Your task to perform on an android device: change your default location settings in chrome Image 0: 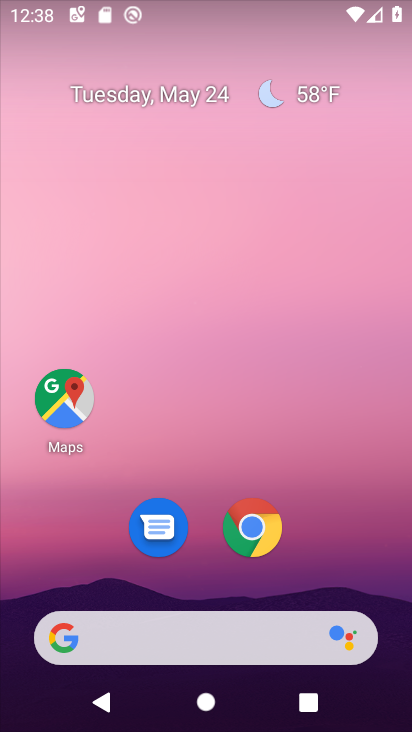
Step 0: click (257, 531)
Your task to perform on an android device: change your default location settings in chrome Image 1: 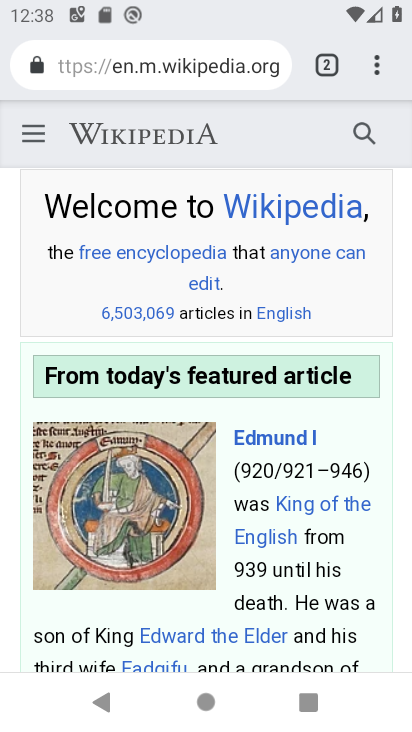
Step 1: click (368, 69)
Your task to perform on an android device: change your default location settings in chrome Image 2: 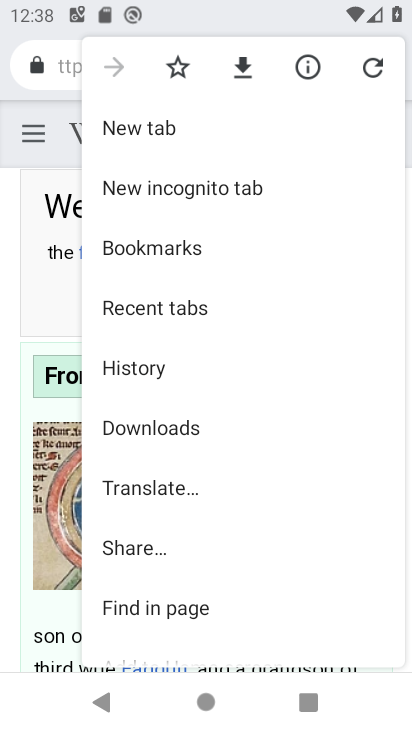
Step 2: drag from (253, 620) to (261, 200)
Your task to perform on an android device: change your default location settings in chrome Image 3: 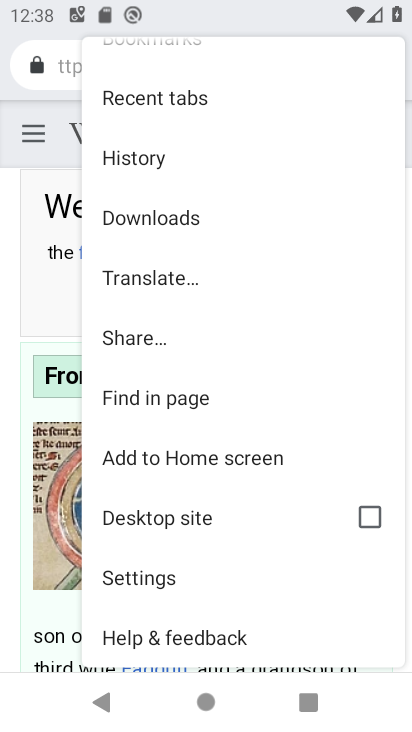
Step 3: click (260, 565)
Your task to perform on an android device: change your default location settings in chrome Image 4: 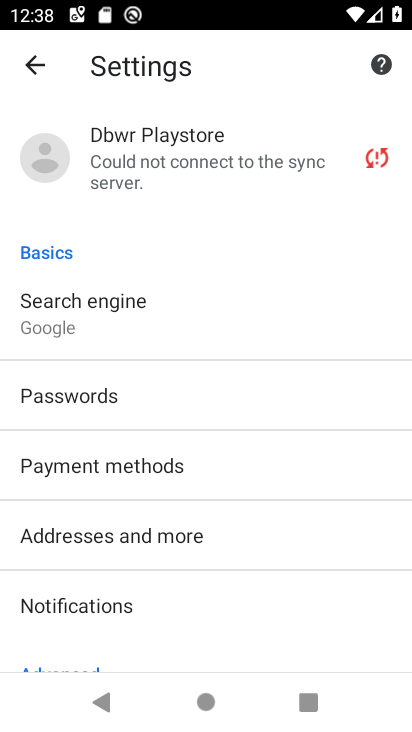
Step 4: click (186, 330)
Your task to perform on an android device: change your default location settings in chrome Image 5: 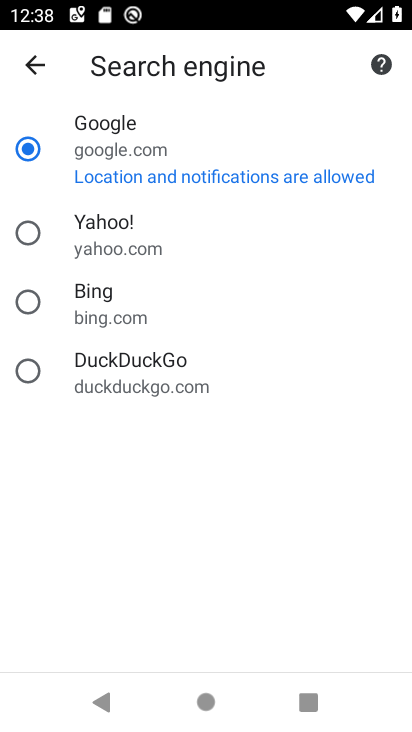
Step 5: click (142, 248)
Your task to perform on an android device: change your default location settings in chrome Image 6: 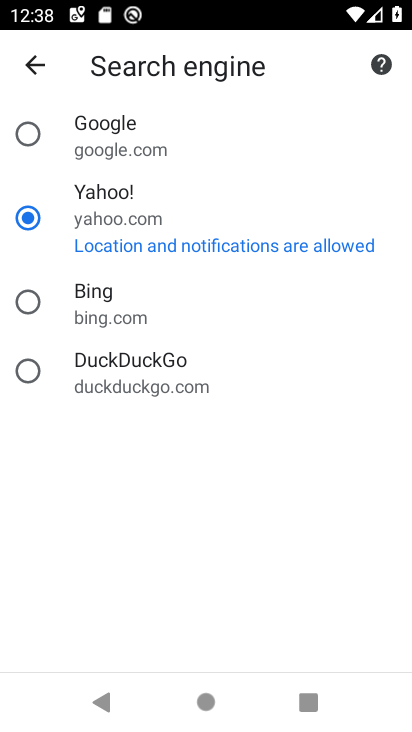
Step 6: task complete